Your task to perform on an android device: Open settings Image 0: 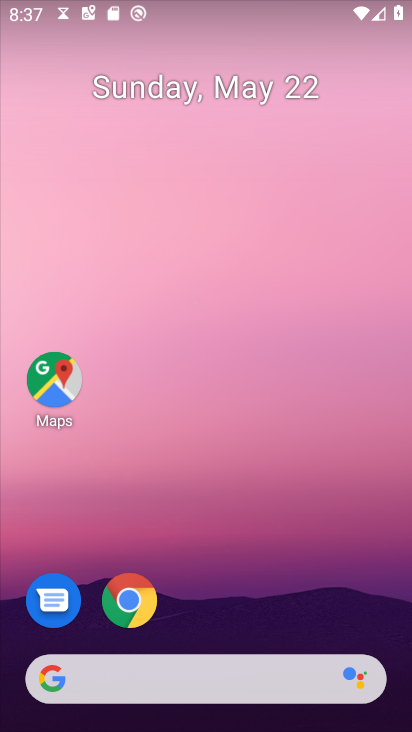
Step 0: drag from (190, 627) to (207, 163)
Your task to perform on an android device: Open settings Image 1: 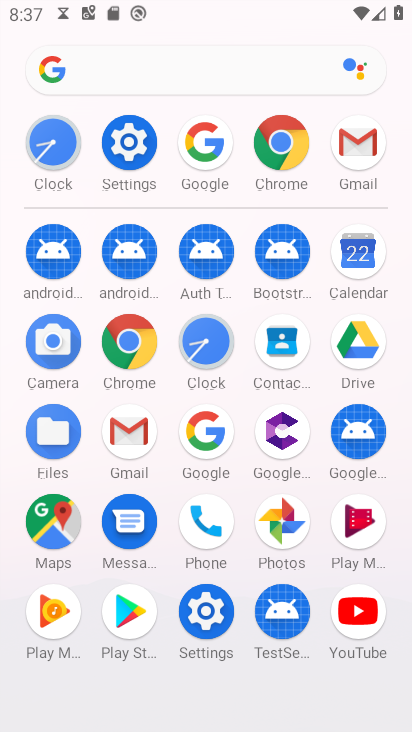
Step 1: click (122, 160)
Your task to perform on an android device: Open settings Image 2: 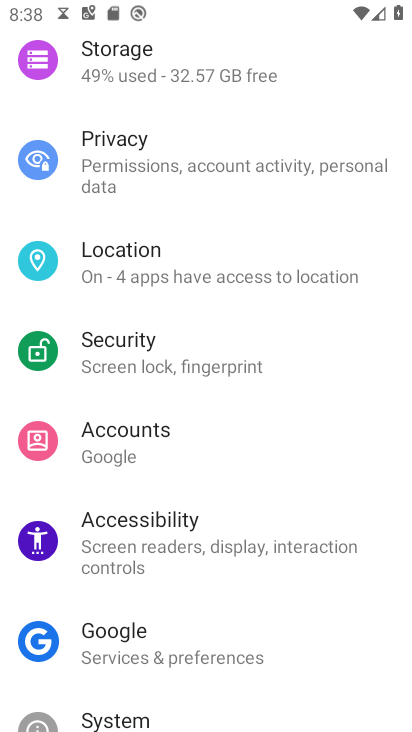
Step 2: task complete